Your task to perform on an android device: turn smart compose on in the gmail app Image 0: 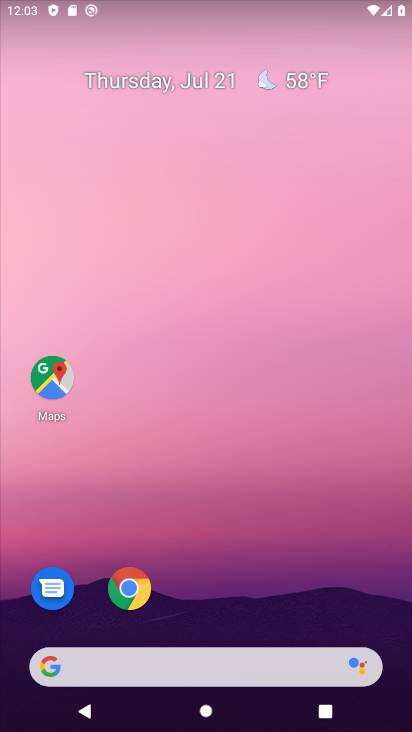
Step 0: drag from (248, 611) to (170, 66)
Your task to perform on an android device: turn smart compose on in the gmail app Image 1: 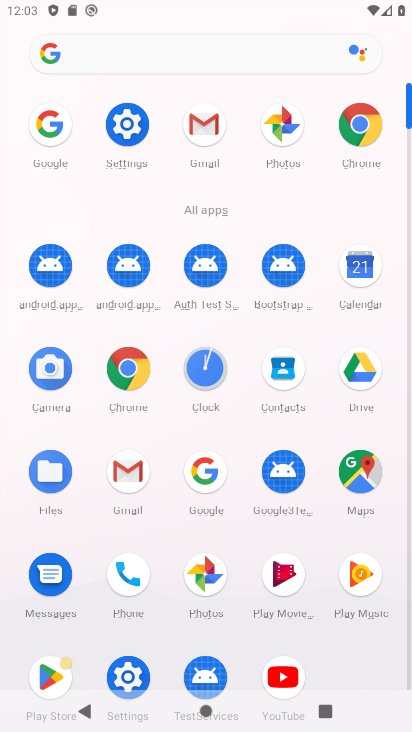
Step 1: click (205, 113)
Your task to perform on an android device: turn smart compose on in the gmail app Image 2: 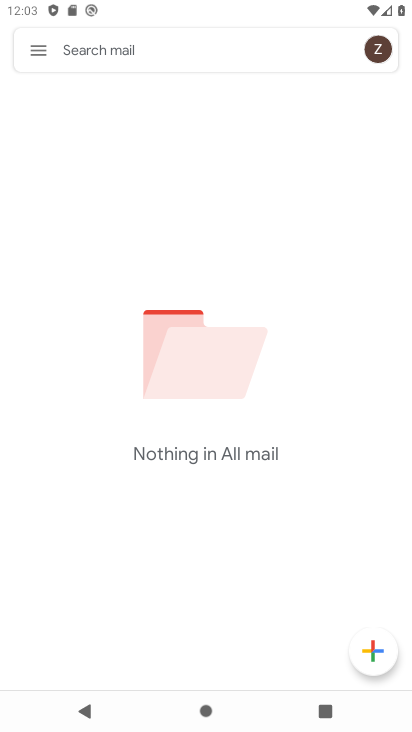
Step 2: click (38, 45)
Your task to perform on an android device: turn smart compose on in the gmail app Image 3: 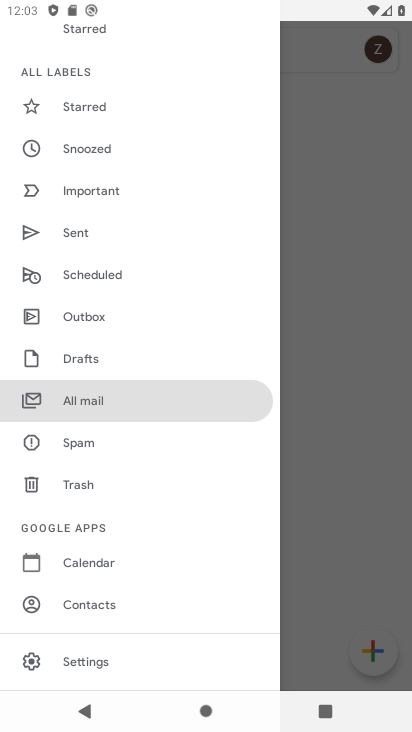
Step 3: click (96, 664)
Your task to perform on an android device: turn smart compose on in the gmail app Image 4: 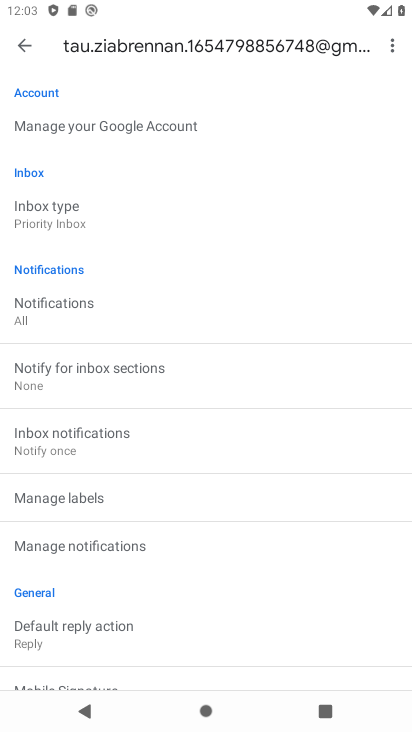
Step 4: task complete